Your task to perform on an android device: What is the news today? Image 0: 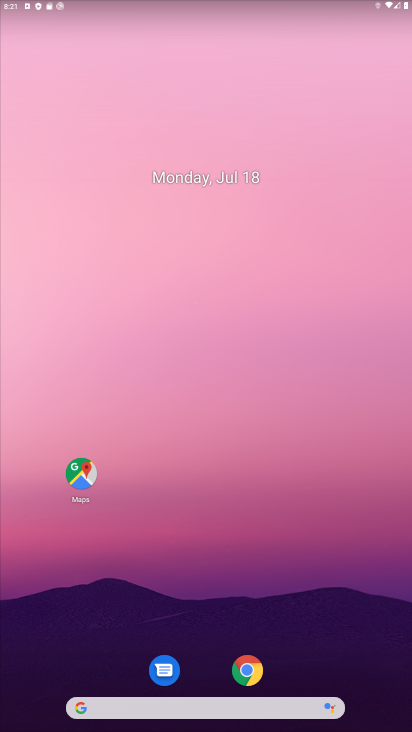
Step 0: drag from (196, 588) to (261, 139)
Your task to perform on an android device: What is the news today? Image 1: 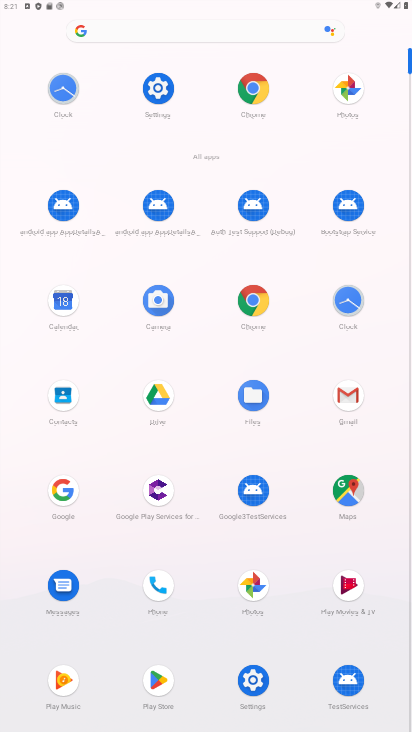
Step 1: click (61, 495)
Your task to perform on an android device: What is the news today? Image 2: 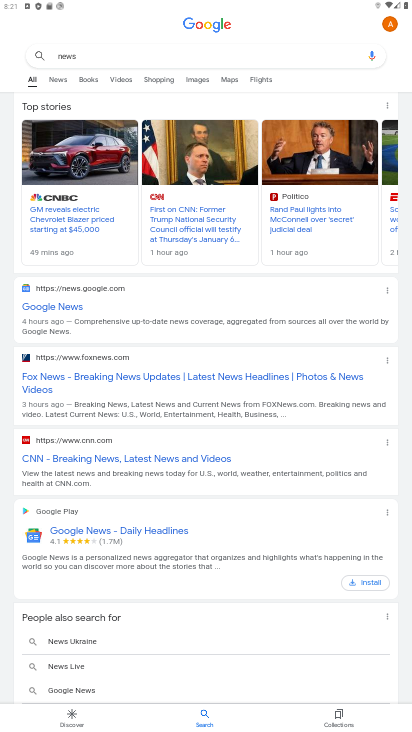
Step 2: task complete